Your task to perform on an android device: move a message to another label in the gmail app Image 0: 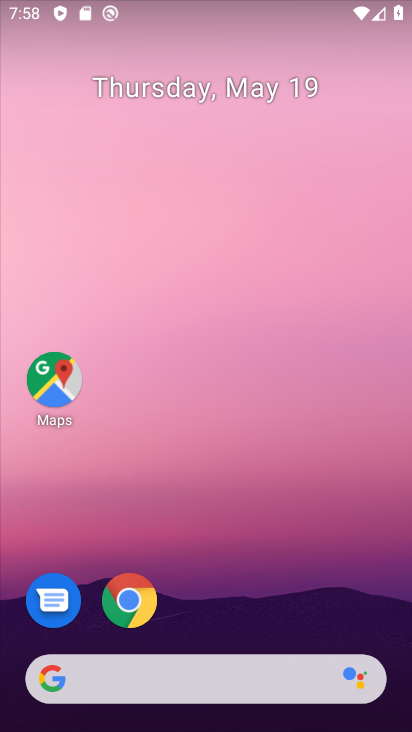
Step 0: drag from (302, 593) to (251, 246)
Your task to perform on an android device: move a message to another label in the gmail app Image 1: 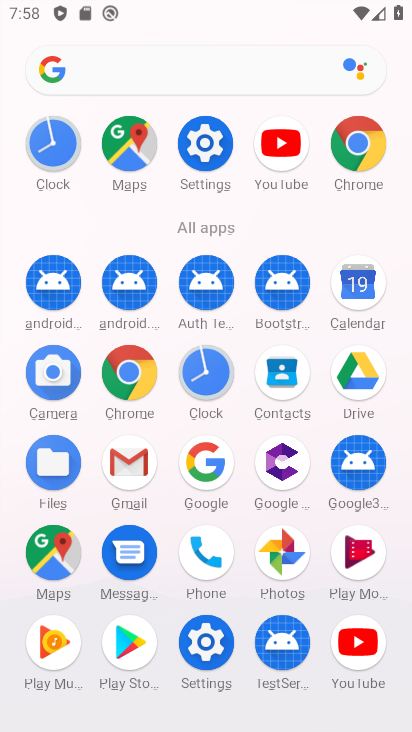
Step 1: click (146, 491)
Your task to perform on an android device: move a message to another label in the gmail app Image 2: 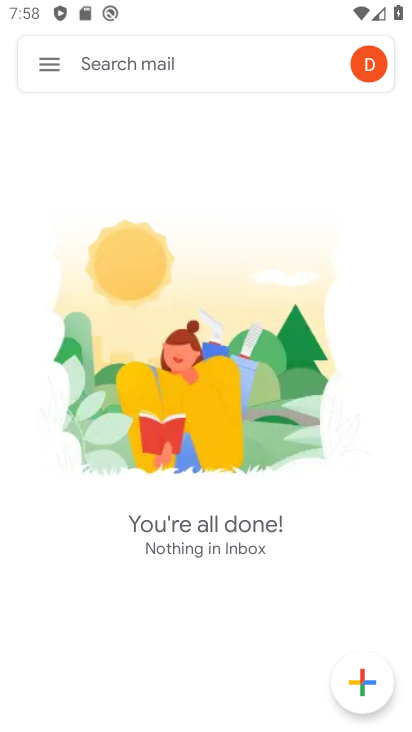
Step 2: click (66, 75)
Your task to perform on an android device: move a message to another label in the gmail app Image 3: 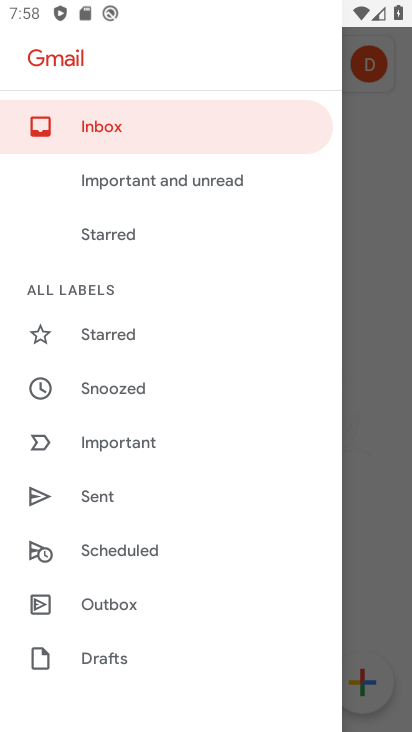
Step 3: drag from (89, 671) to (98, 381)
Your task to perform on an android device: move a message to another label in the gmail app Image 4: 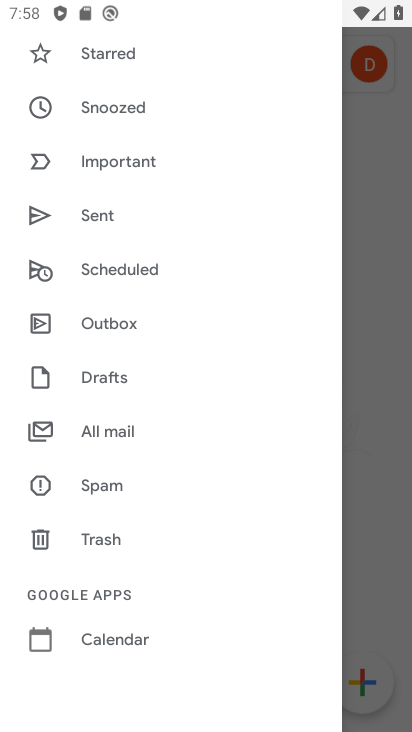
Step 4: click (160, 434)
Your task to perform on an android device: move a message to another label in the gmail app Image 5: 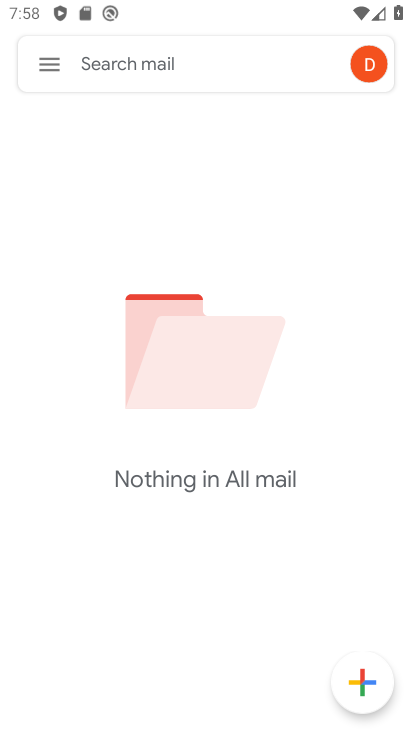
Step 5: task complete